Your task to perform on an android device: empty trash in google photos Image 0: 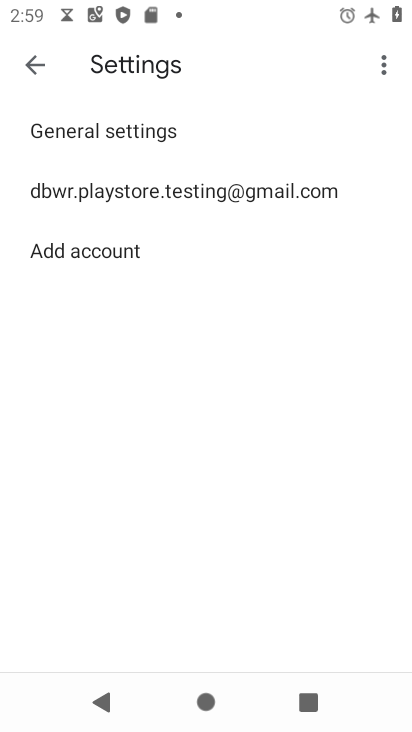
Step 0: press back button
Your task to perform on an android device: empty trash in google photos Image 1: 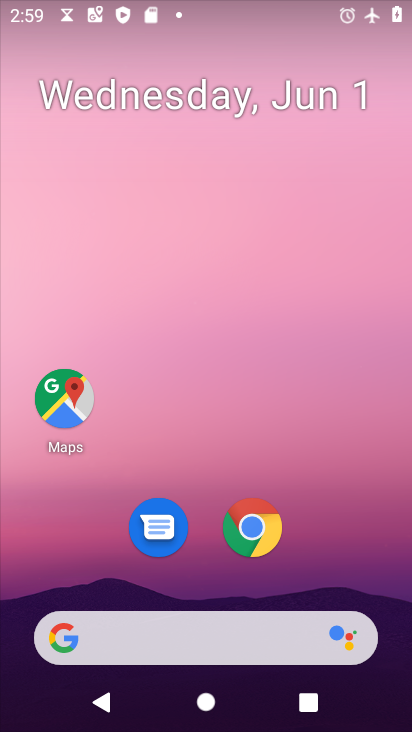
Step 1: drag from (310, 556) to (225, 155)
Your task to perform on an android device: empty trash in google photos Image 2: 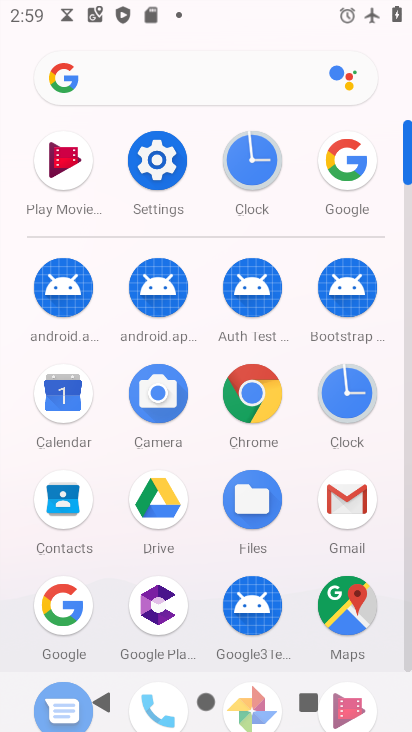
Step 2: drag from (298, 560) to (274, 330)
Your task to perform on an android device: empty trash in google photos Image 3: 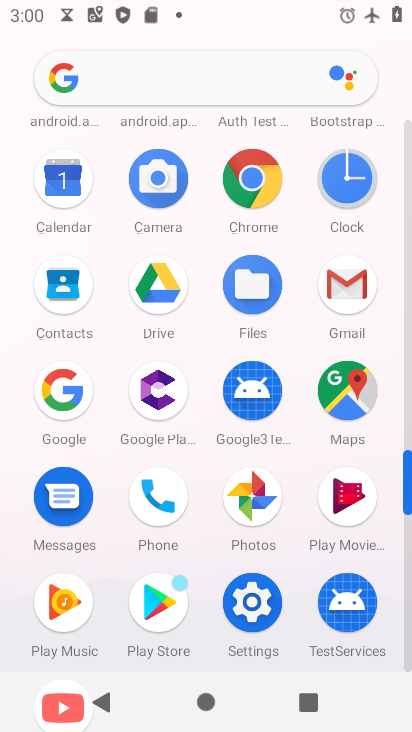
Step 3: click (252, 495)
Your task to perform on an android device: empty trash in google photos Image 4: 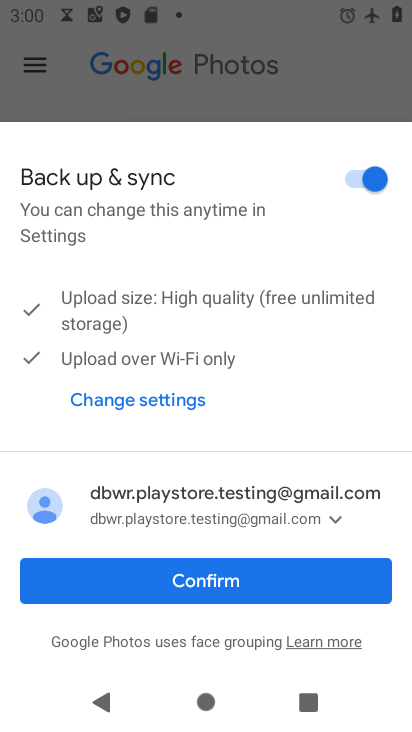
Step 4: click (230, 578)
Your task to perform on an android device: empty trash in google photos Image 5: 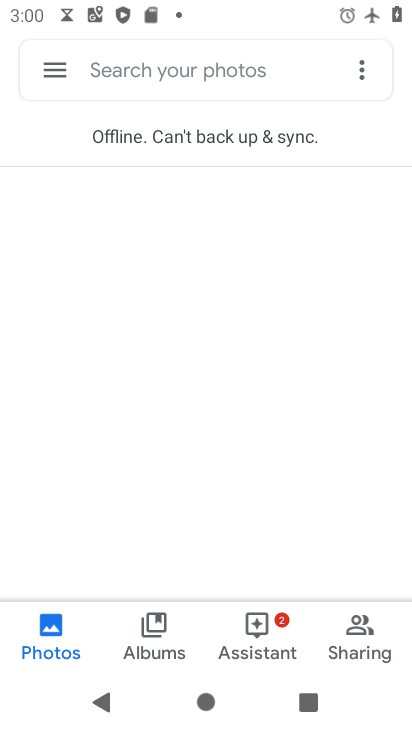
Step 5: click (59, 66)
Your task to perform on an android device: empty trash in google photos Image 6: 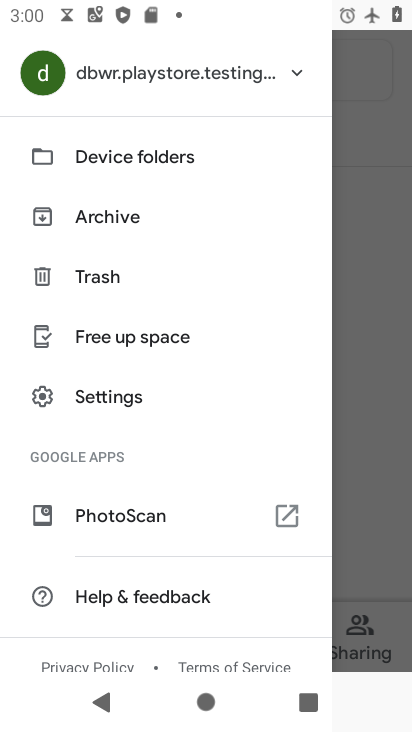
Step 6: click (106, 275)
Your task to perform on an android device: empty trash in google photos Image 7: 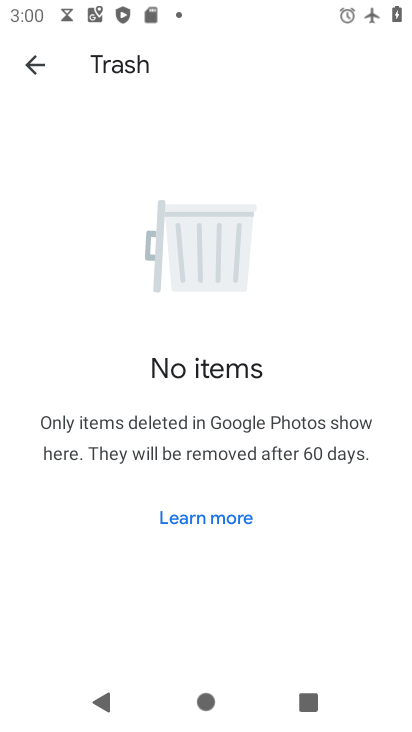
Step 7: task complete